Your task to perform on an android device: Open my contact list Image 0: 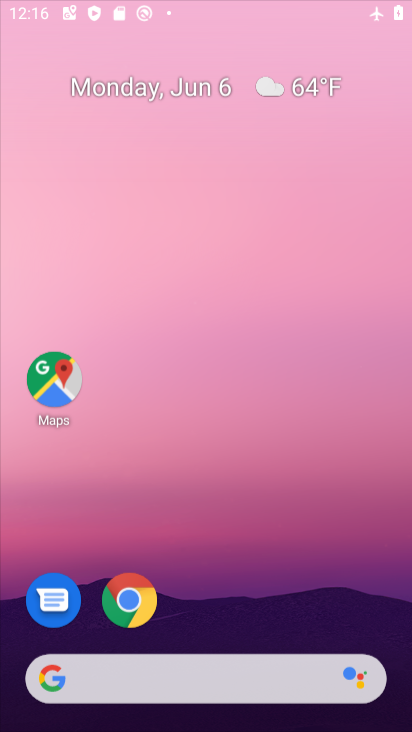
Step 0: drag from (364, 557) to (293, 60)
Your task to perform on an android device: Open my contact list Image 1: 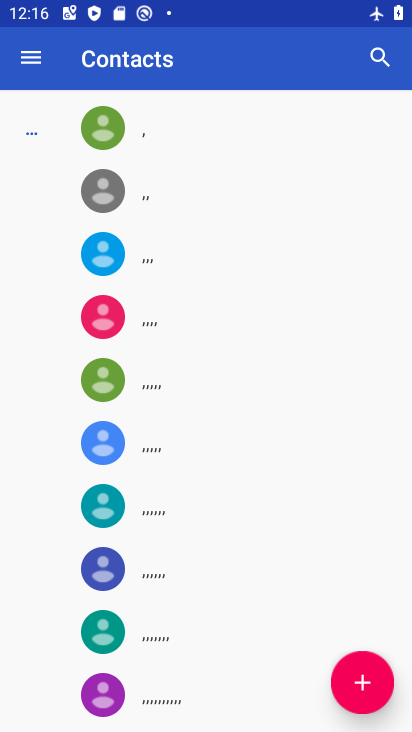
Step 1: click (373, 675)
Your task to perform on an android device: Open my contact list Image 2: 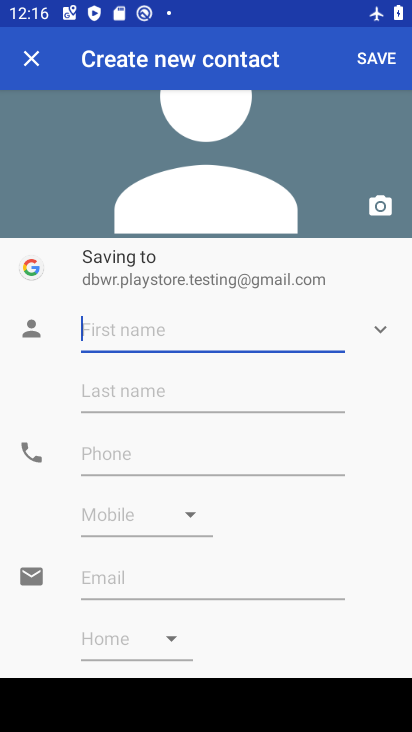
Step 2: task complete